Your task to perform on an android device: open a bookmark in the chrome app Image 0: 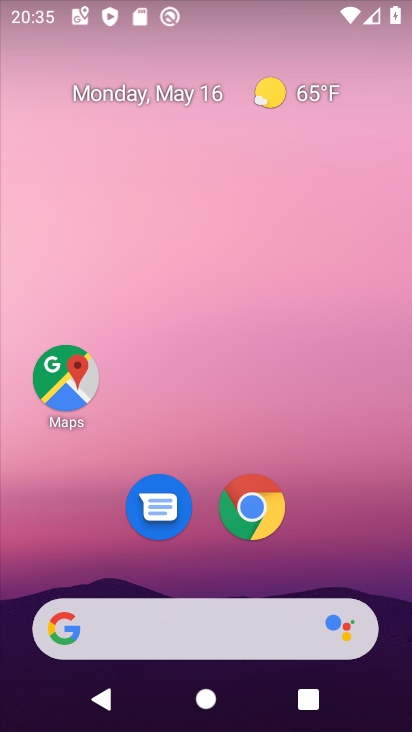
Step 0: click (227, 502)
Your task to perform on an android device: open a bookmark in the chrome app Image 1: 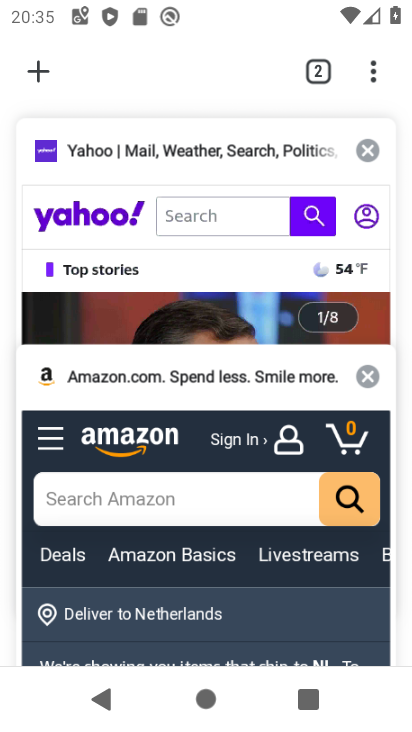
Step 1: click (313, 241)
Your task to perform on an android device: open a bookmark in the chrome app Image 2: 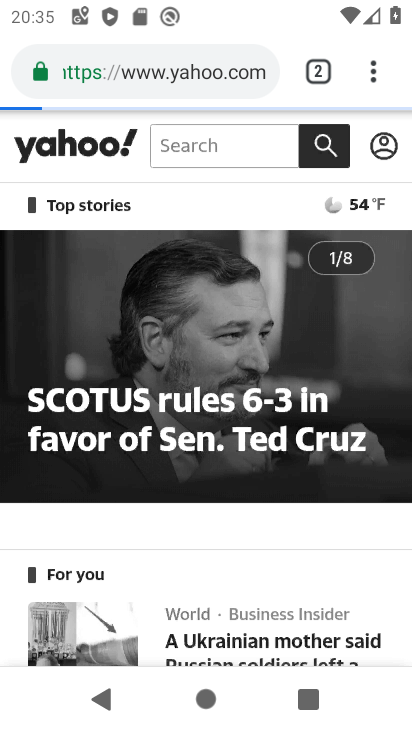
Step 2: click (370, 64)
Your task to perform on an android device: open a bookmark in the chrome app Image 3: 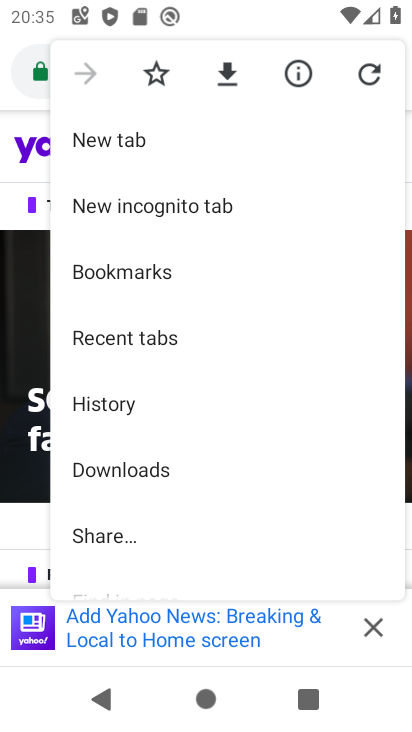
Step 3: click (113, 266)
Your task to perform on an android device: open a bookmark in the chrome app Image 4: 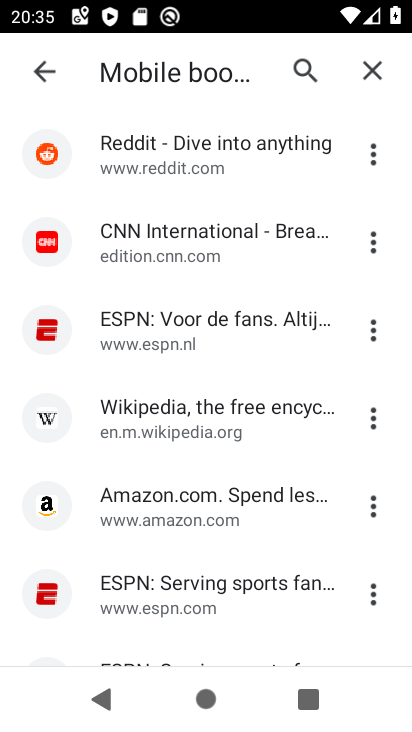
Step 4: task complete